Your task to perform on an android device: open a bookmark in the chrome app Image 0: 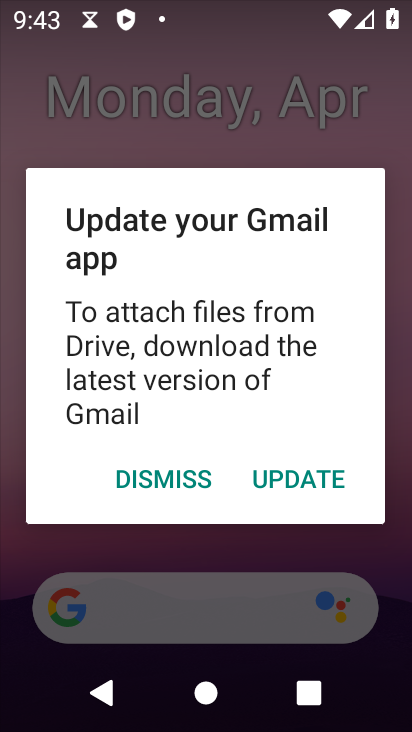
Step 0: press home button
Your task to perform on an android device: open a bookmark in the chrome app Image 1: 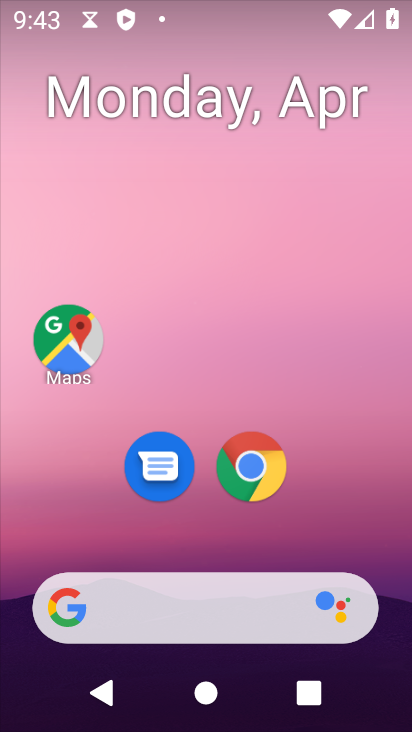
Step 1: click (258, 469)
Your task to perform on an android device: open a bookmark in the chrome app Image 2: 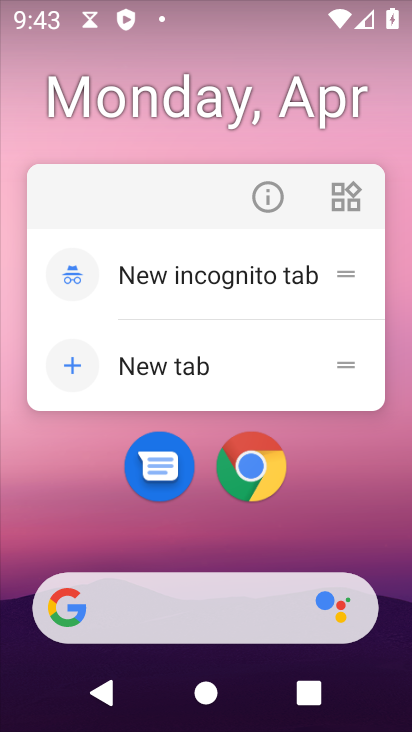
Step 2: click (258, 469)
Your task to perform on an android device: open a bookmark in the chrome app Image 3: 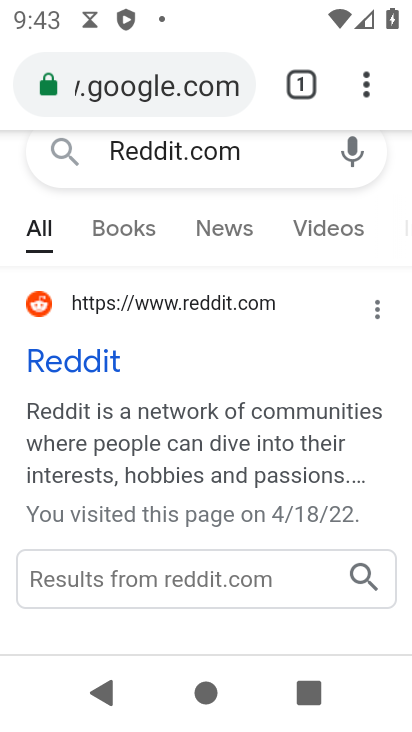
Step 3: click (369, 82)
Your task to perform on an android device: open a bookmark in the chrome app Image 4: 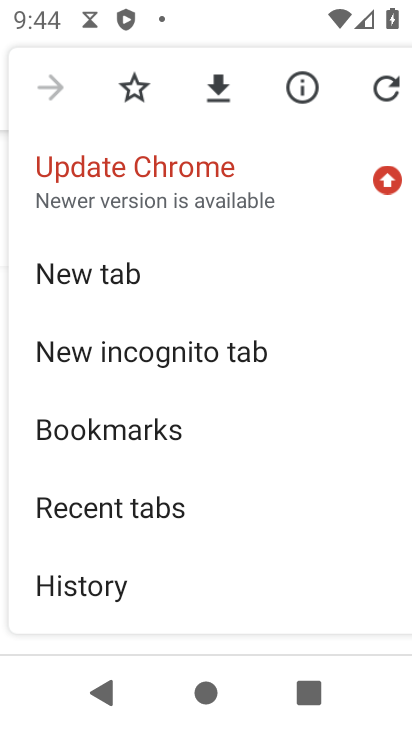
Step 4: click (154, 430)
Your task to perform on an android device: open a bookmark in the chrome app Image 5: 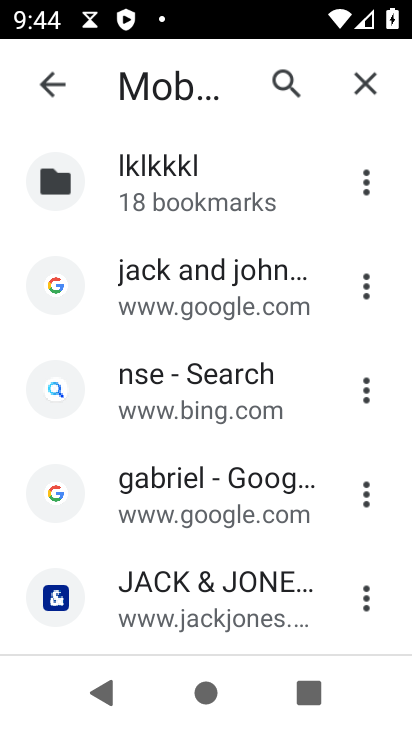
Step 5: task complete